Your task to perform on an android device: Search for "logitech g502" on amazon, select the first entry, and add it to the cart. Image 0: 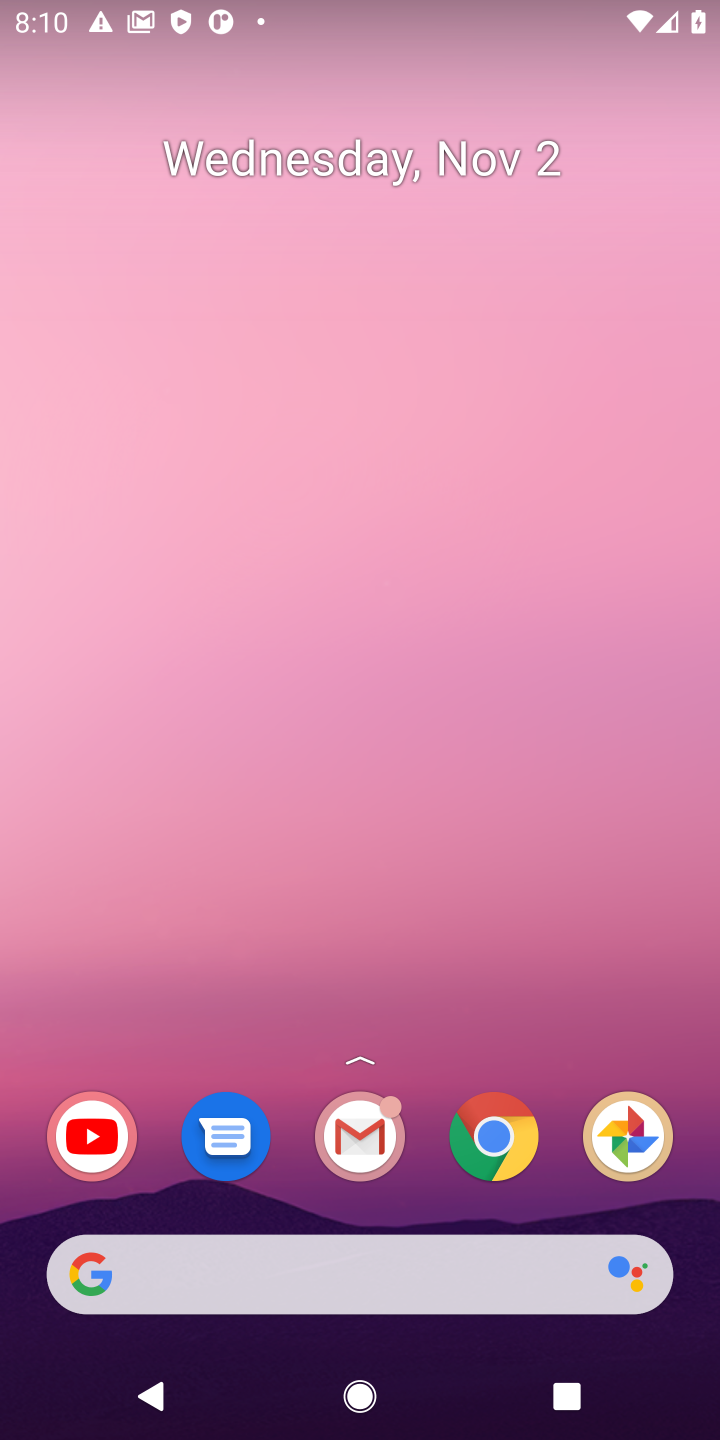
Step 0: drag from (432, 1132) to (325, 163)
Your task to perform on an android device: Search for "logitech g502" on amazon, select the first entry, and add it to the cart. Image 1: 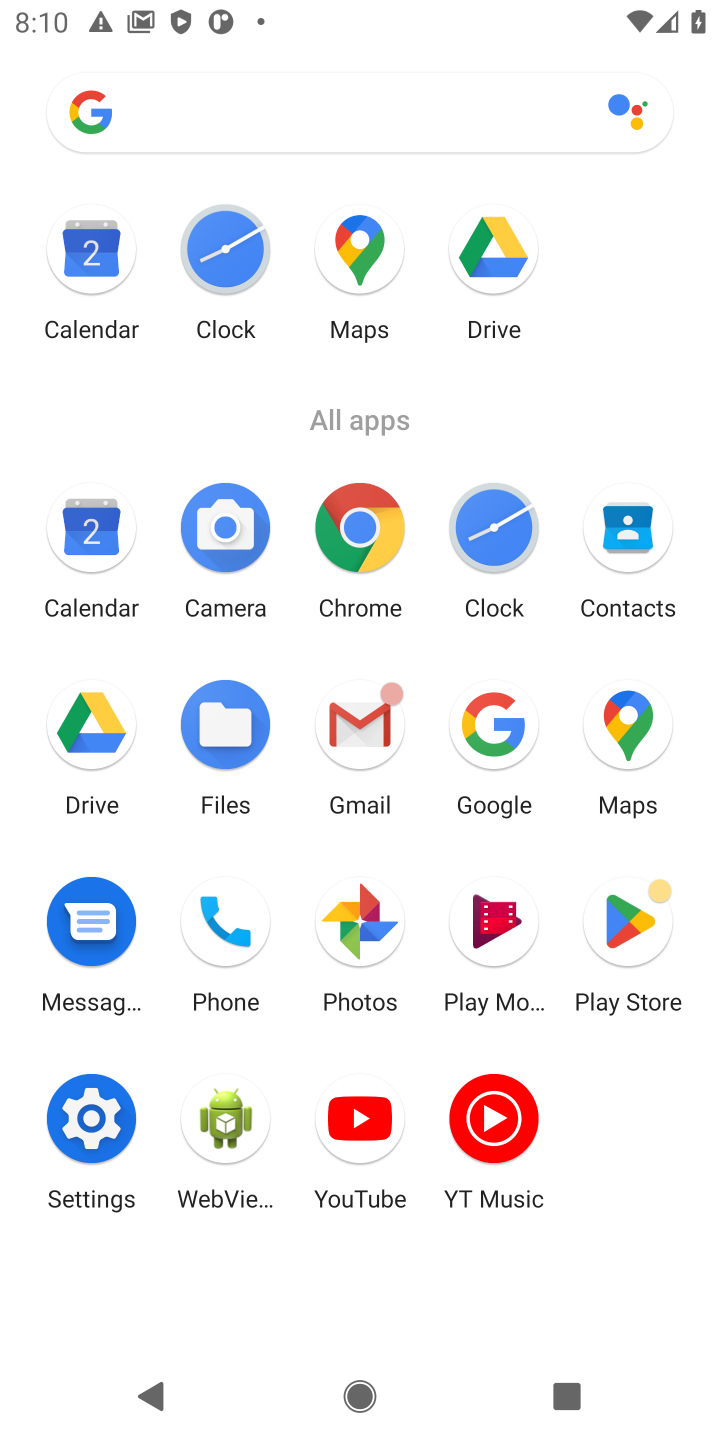
Step 1: click (484, 738)
Your task to perform on an android device: Search for "logitech g502" on amazon, select the first entry, and add it to the cart. Image 2: 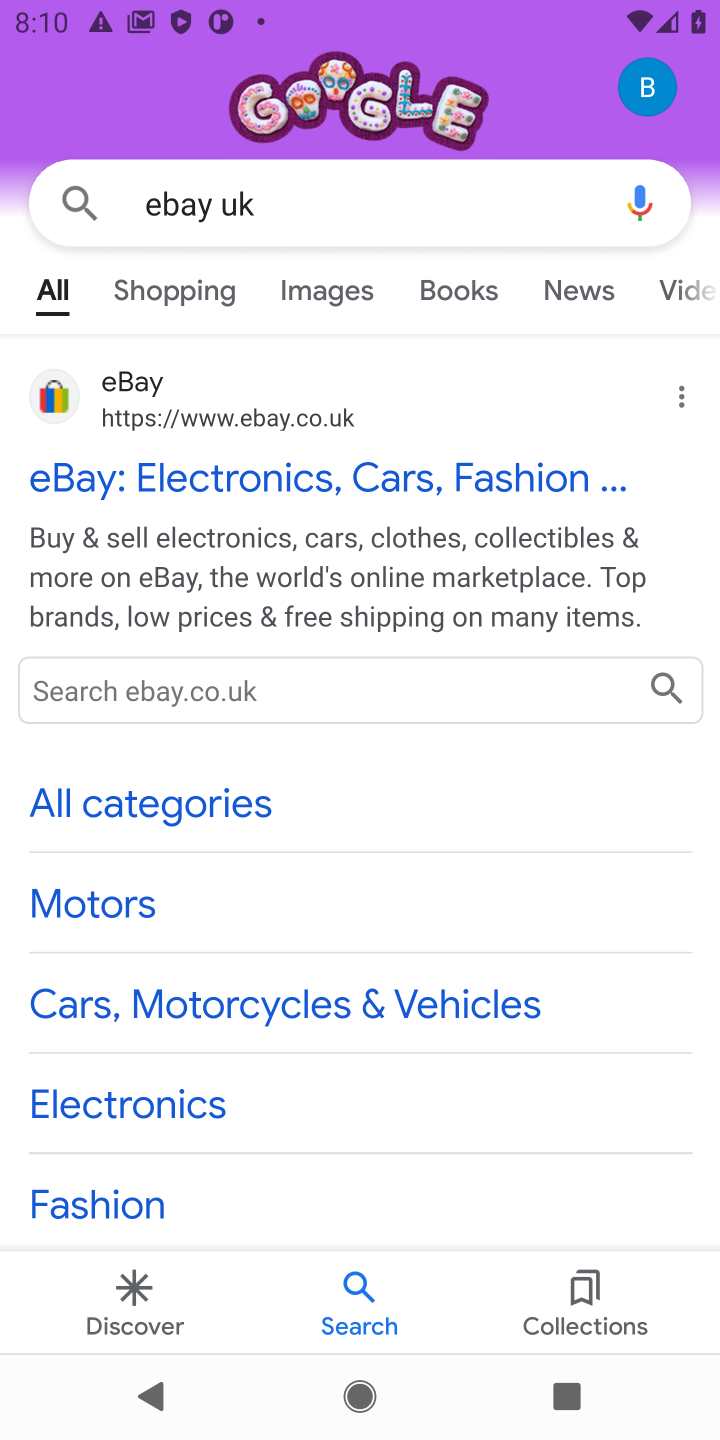
Step 2: click (329, 218)
Your task to perform on an android device: Search for "logitech g502" on amazon, select the first entry, and add it to the cart. Image 3: 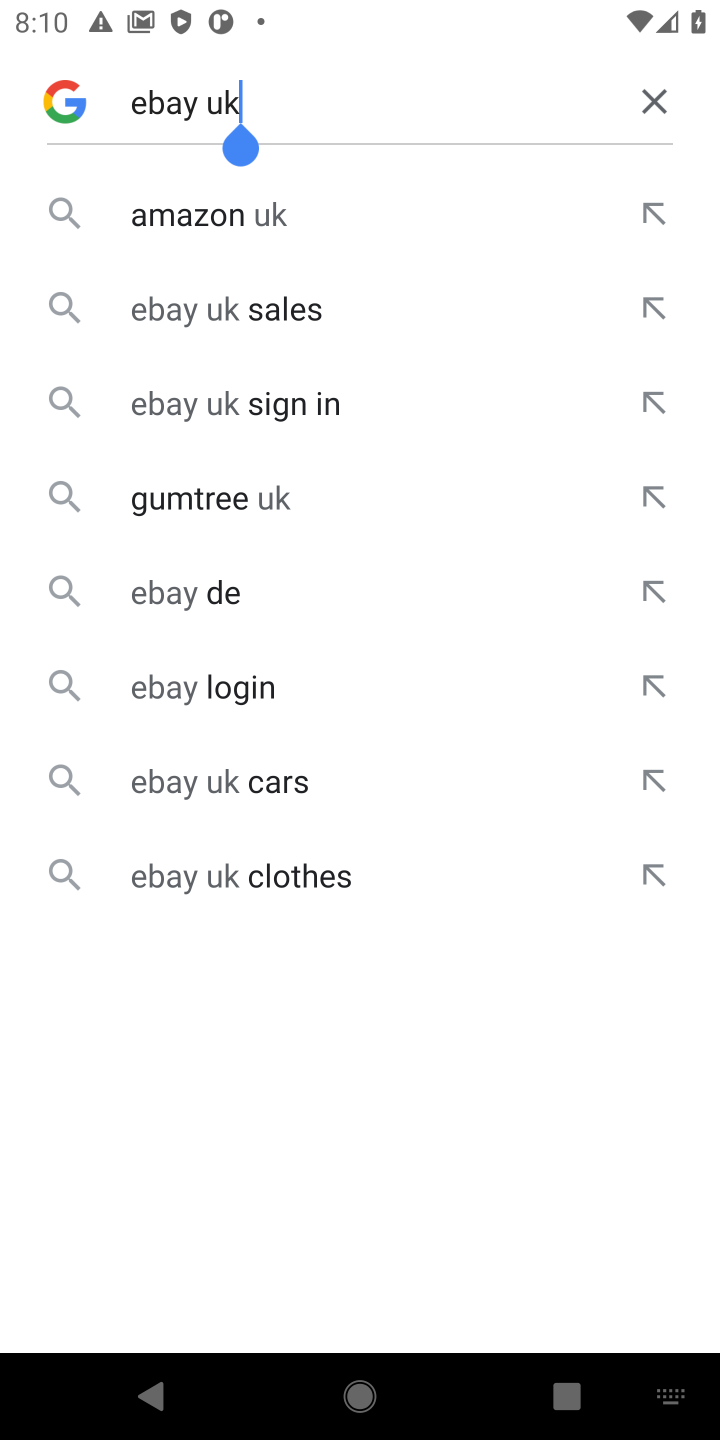
Step 3: click (667, 97)
Your task to perform on an android device: Search for "logitech g502" on amazon, select the first entry, and add it to the cart. Image 4: 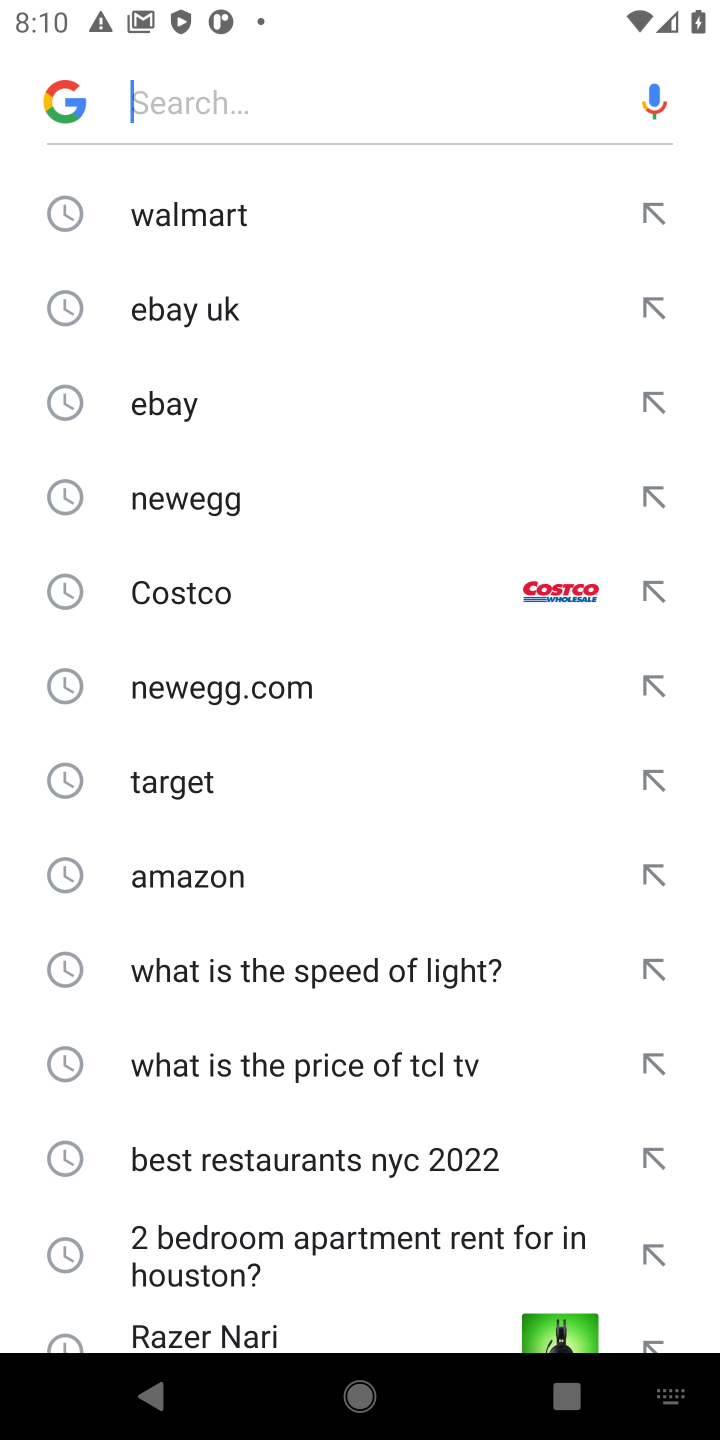
Step 4: click (230, 99)
Your task to perform on an android device: Search for "logitech g502" on amazon, select the first entry, and add it to the cart. Image 5: 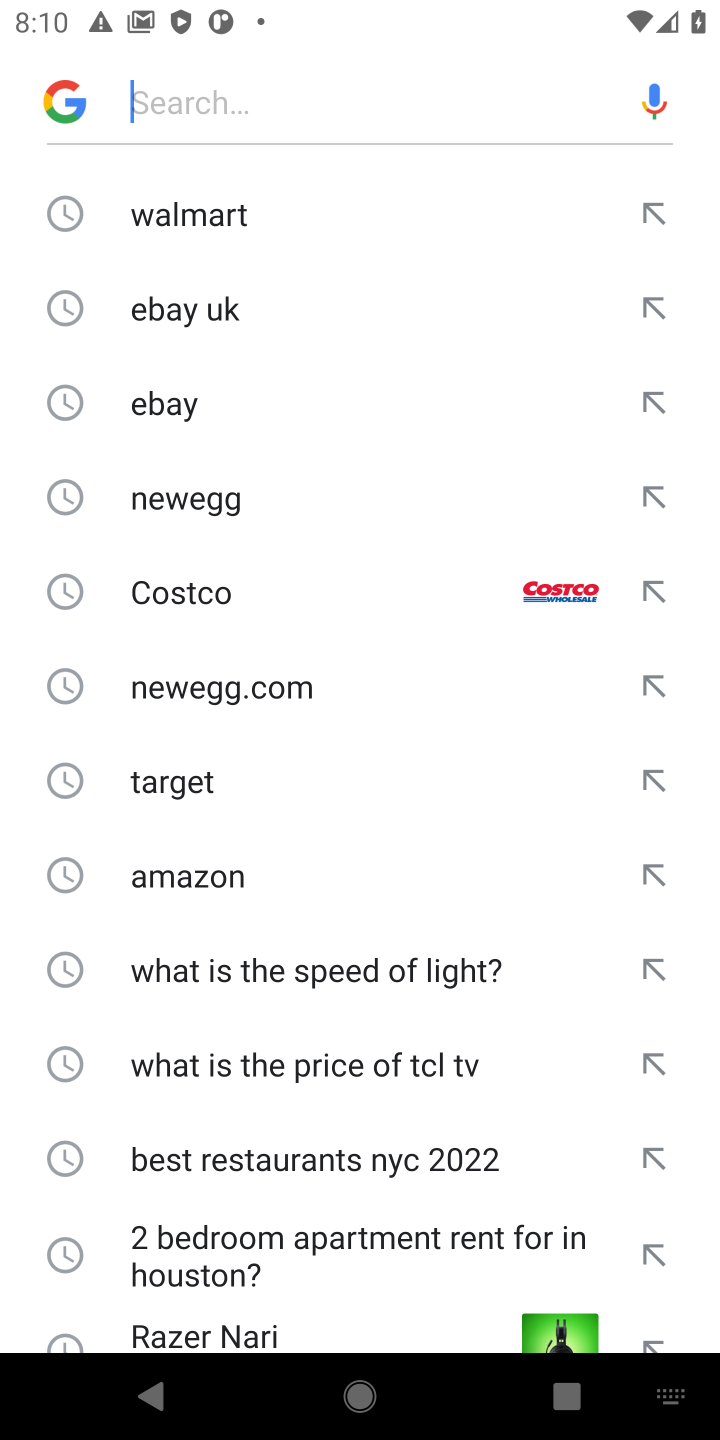
Step 5: type "amazon "
Your task to perform on an android device: Search for "logitech g502" on amazon, select the first entry, and add it to the cart. Image 6: 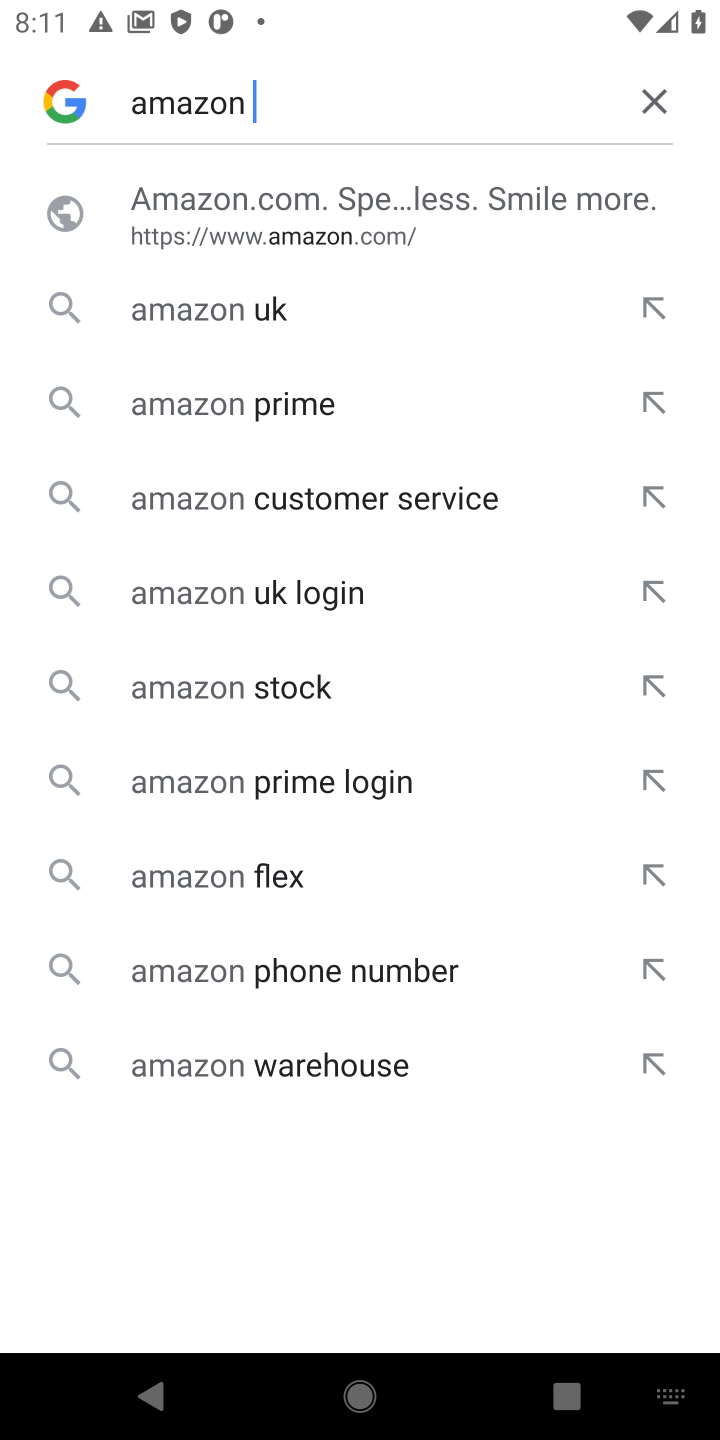
Step 6: click (288, 284)
Your task to perform on an android device: Search for "logitech g502" on amazon, select the first entry, and add it to the cart. Image 7: 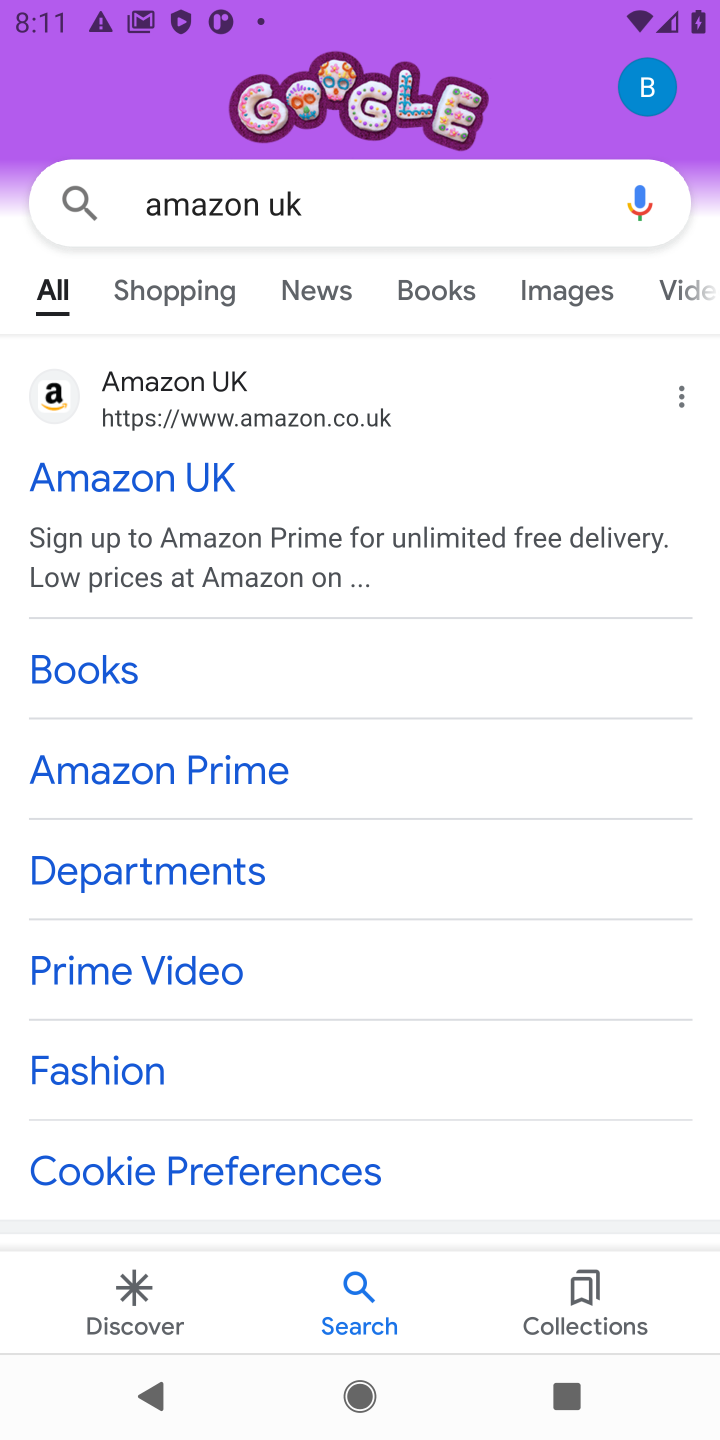
Step 7: click (102, 489)
Your task to perform on an android device: Search for "logitech g502" on amazon, select the first entry, and add it to the cart. Image 8: 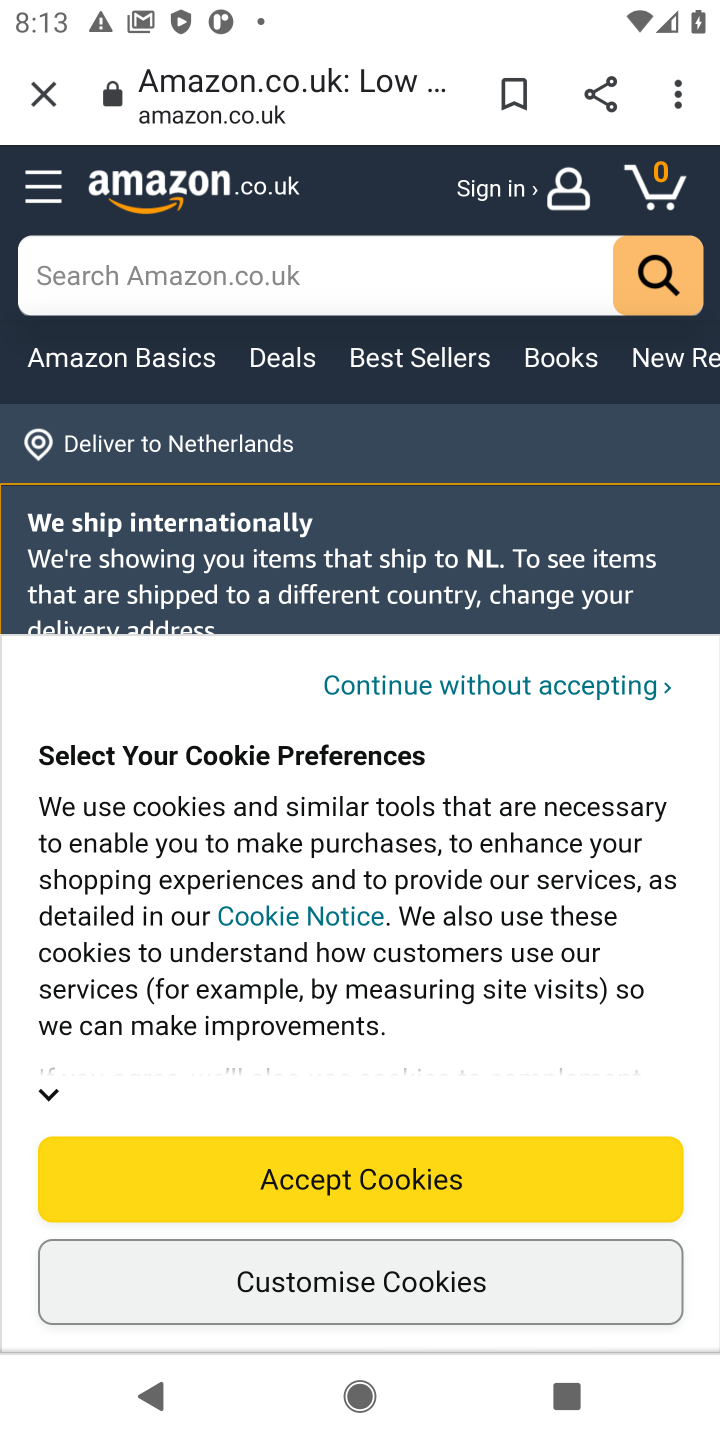
Step 8: click (290, 1154)
Your task to perform on an android device: Search for "logitech g502" on amazon, select the first entry, and add it to the cart. Image 9: 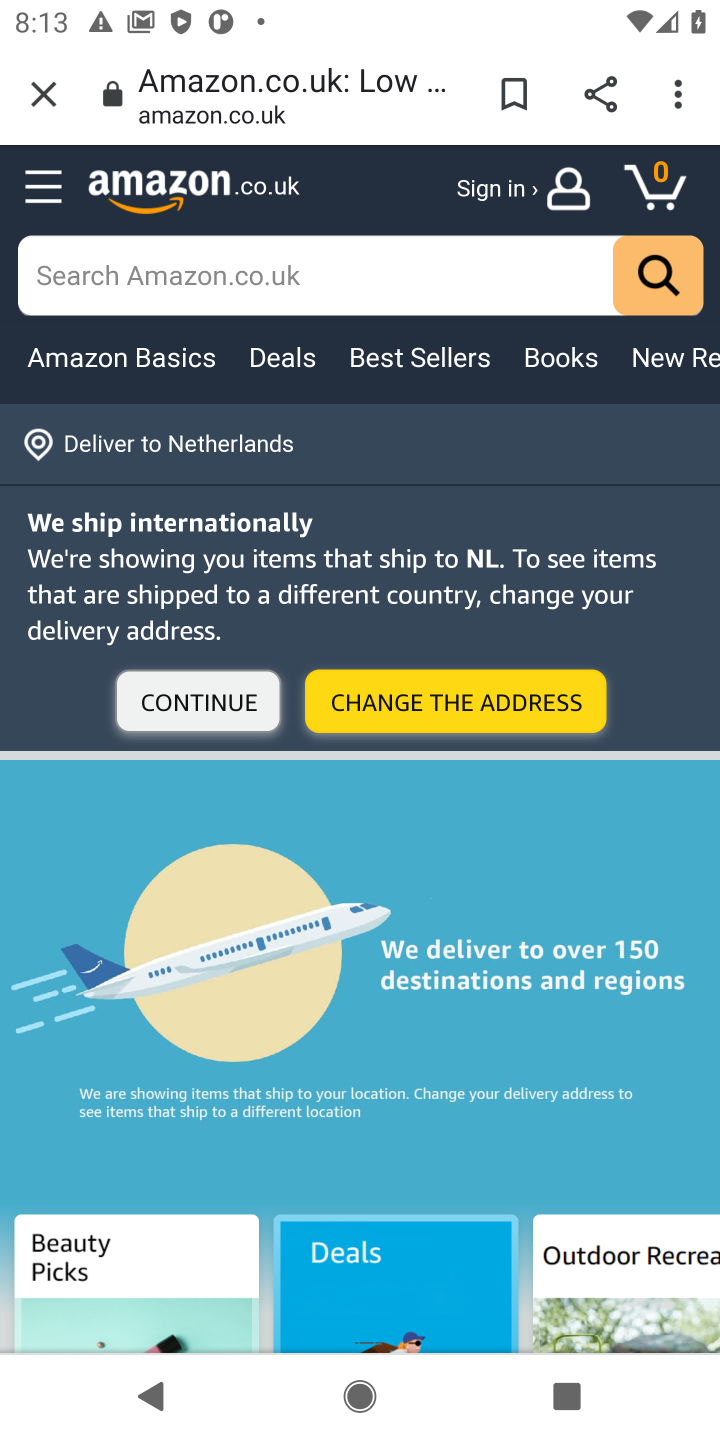
Step 9: drag from (416, 1076) to (545, 168)
Your task to perform on an android device: Search for "logitech g502" on amazon, select the first entry, and add it to the cart. Image 10: 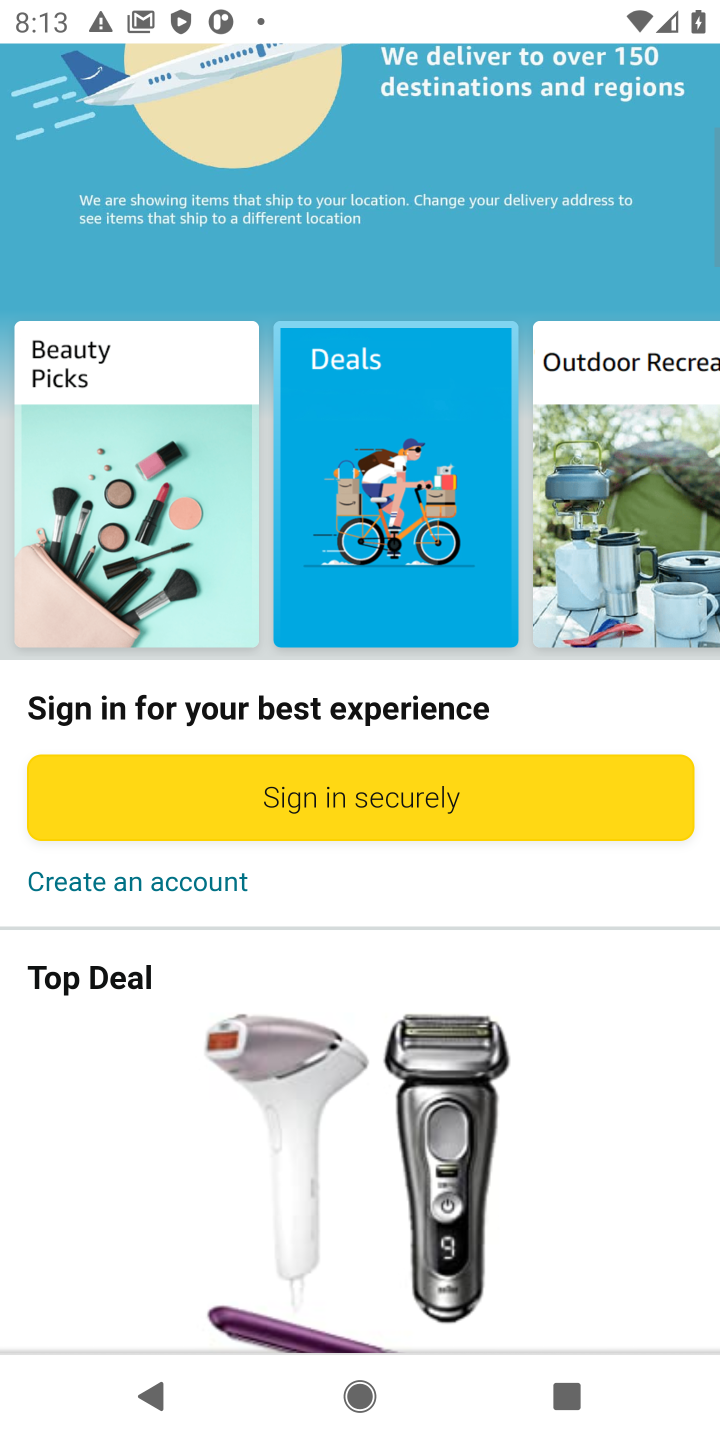
Step 10: drag from (361, 1190) to (349, 1361)
Your task to perform on an android device: Search for "logitech g502" on amazon, select the first entry, and add it to the cart. Image 11: 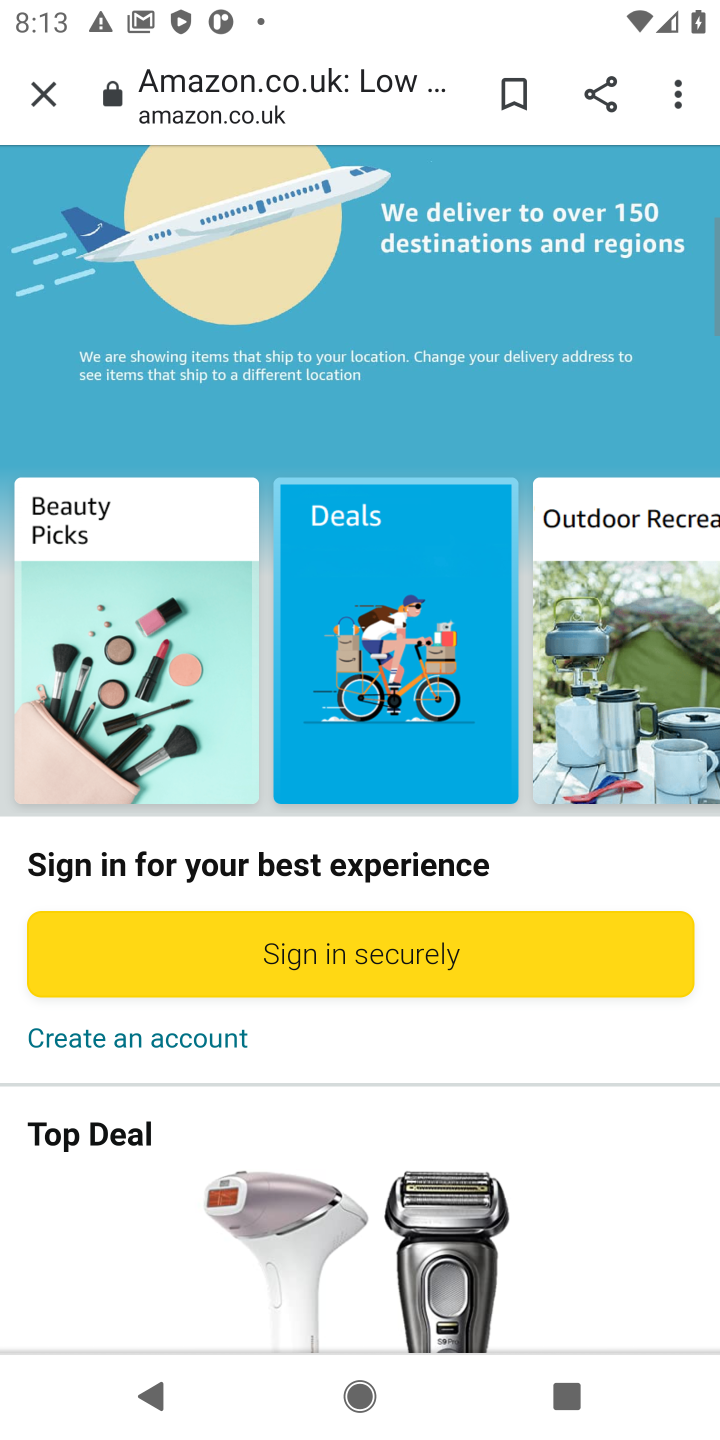
Step 11: drag from (321, 709) to (321, 842)
Your task to perform on an android device: Search for "logitech g502" on amazon, select the first entry, and add it to the cart. Image 12: 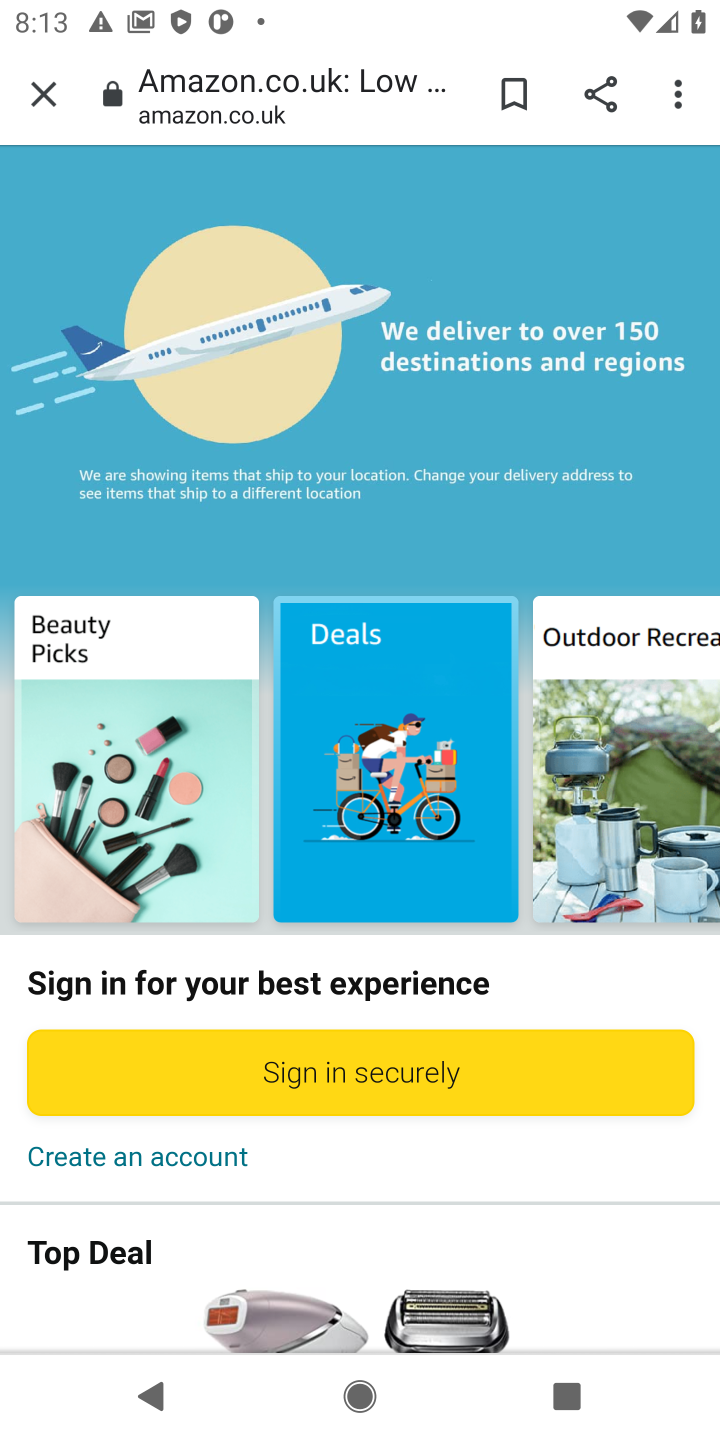
Step 12: drag from (285, 295) to (289, 1389)
Your task to perform on an android device: Search for "logitech g502" on amazon, select the first entry, and add it to the cart. Image 13: 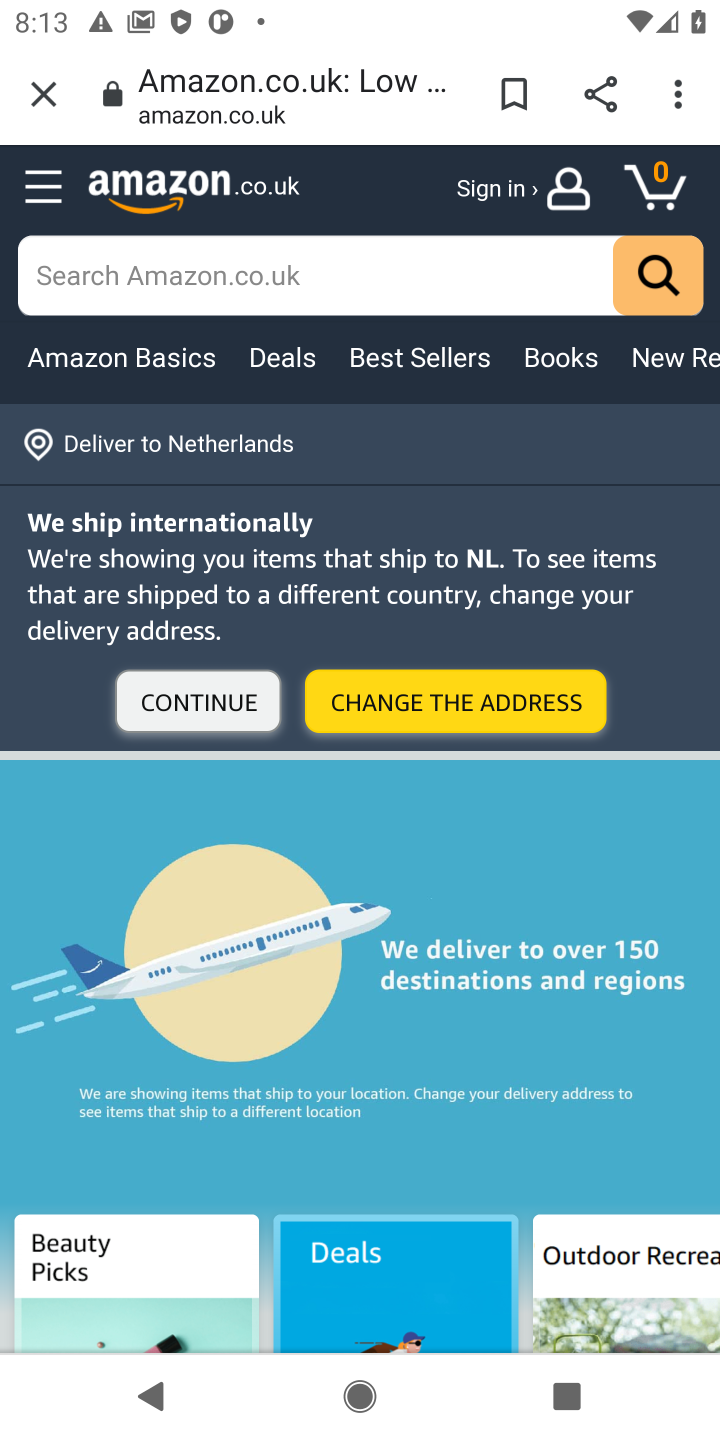
Step 13: click (285, 272)
Your task to perform on an android device: Search for "logitech g502" on amazon, select the first entry, and add it to the cart. Image 14: 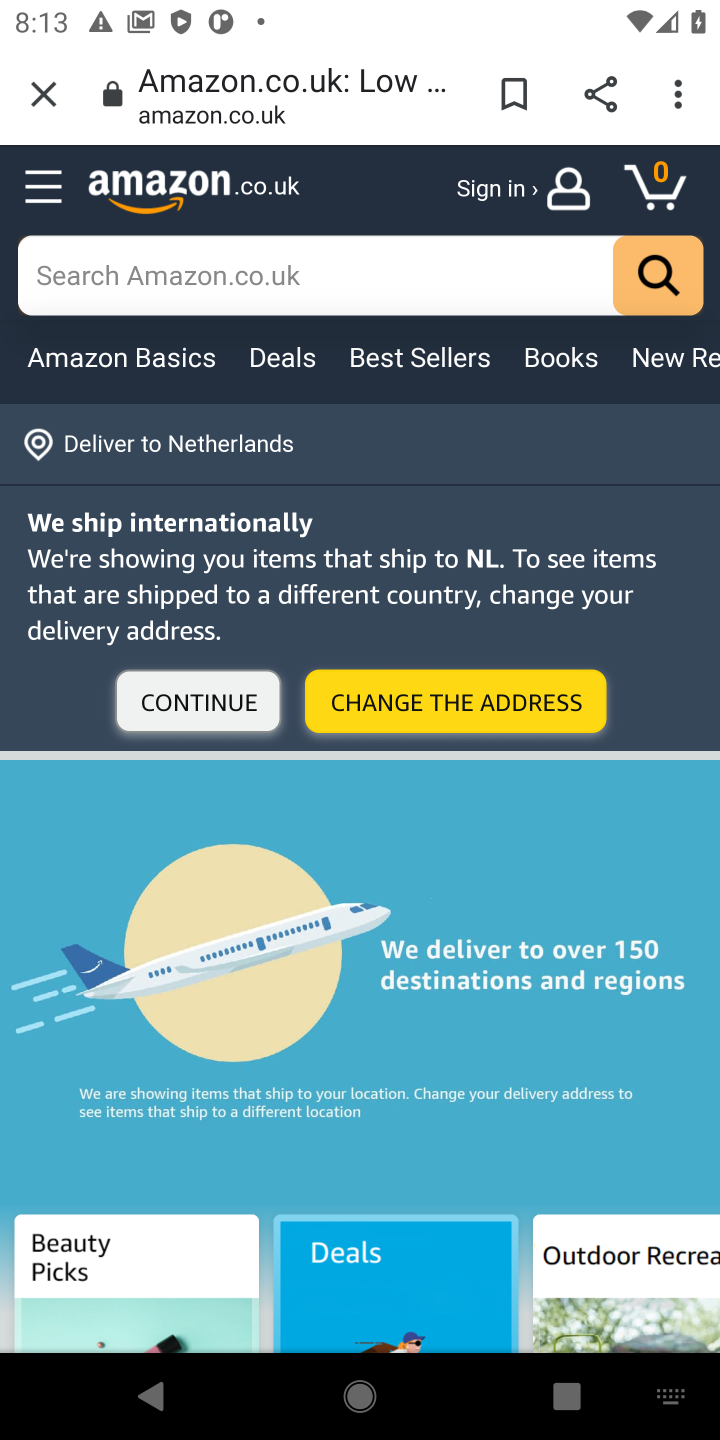
Step 14: type "logitech g502 "
Your task to perform on an android device: Search for "logitech g502" on amazon, select the first entry, and add it to the cart. Image 15: 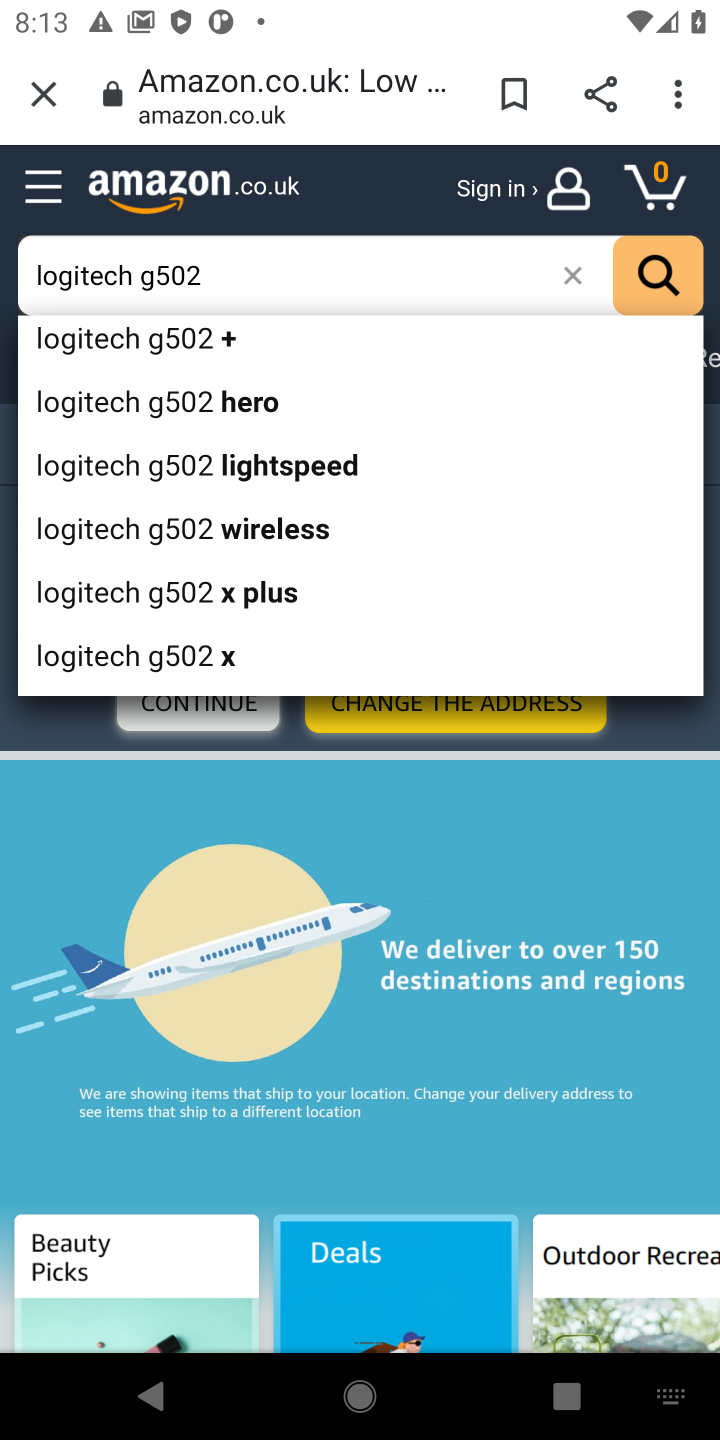
Step 15: click (136, 325)
Your task to perform on an android device: Search for "logitech g502" on amazon, select the first entry, and add it to the cart. Image 16: 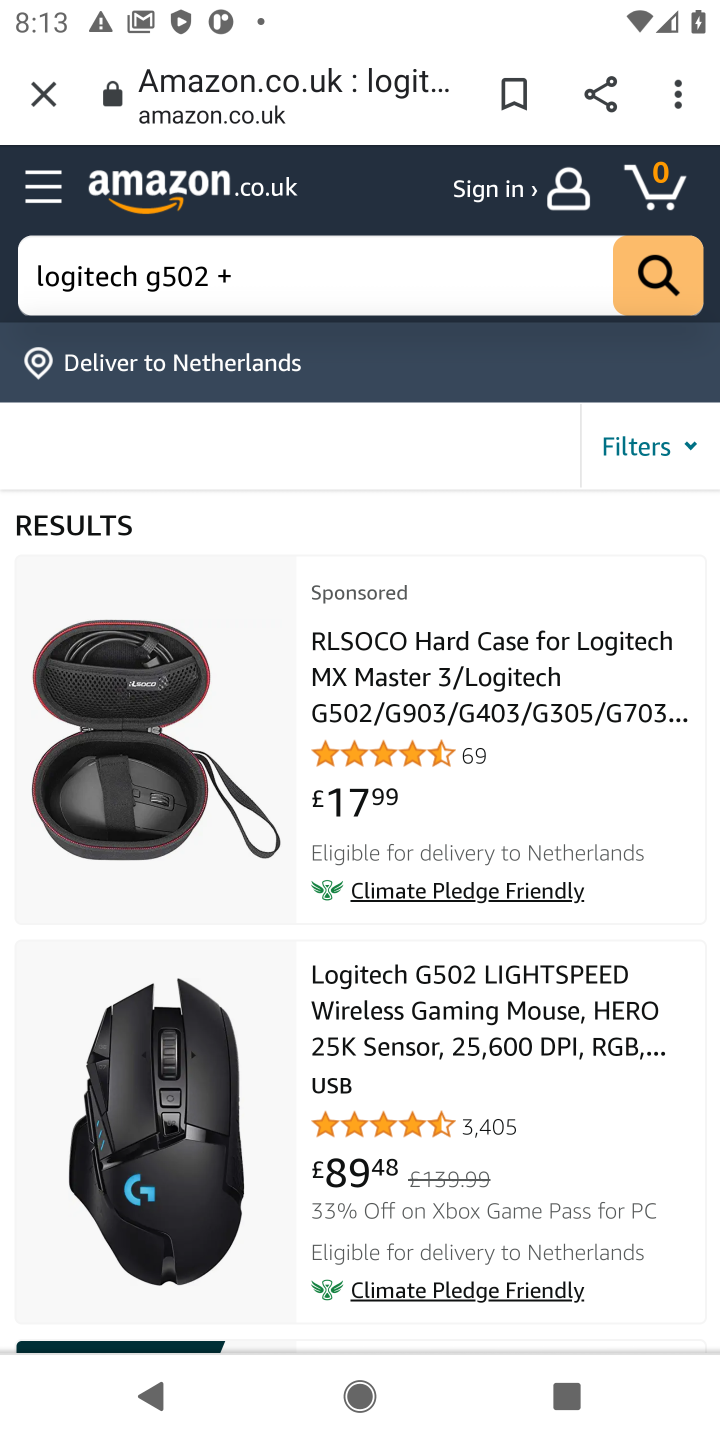
Step 16: click (431, 622)
Your task to perform on an android device: Search for "logitech g502" on amazon, select the first entry, and add it to the cart. Image 17: 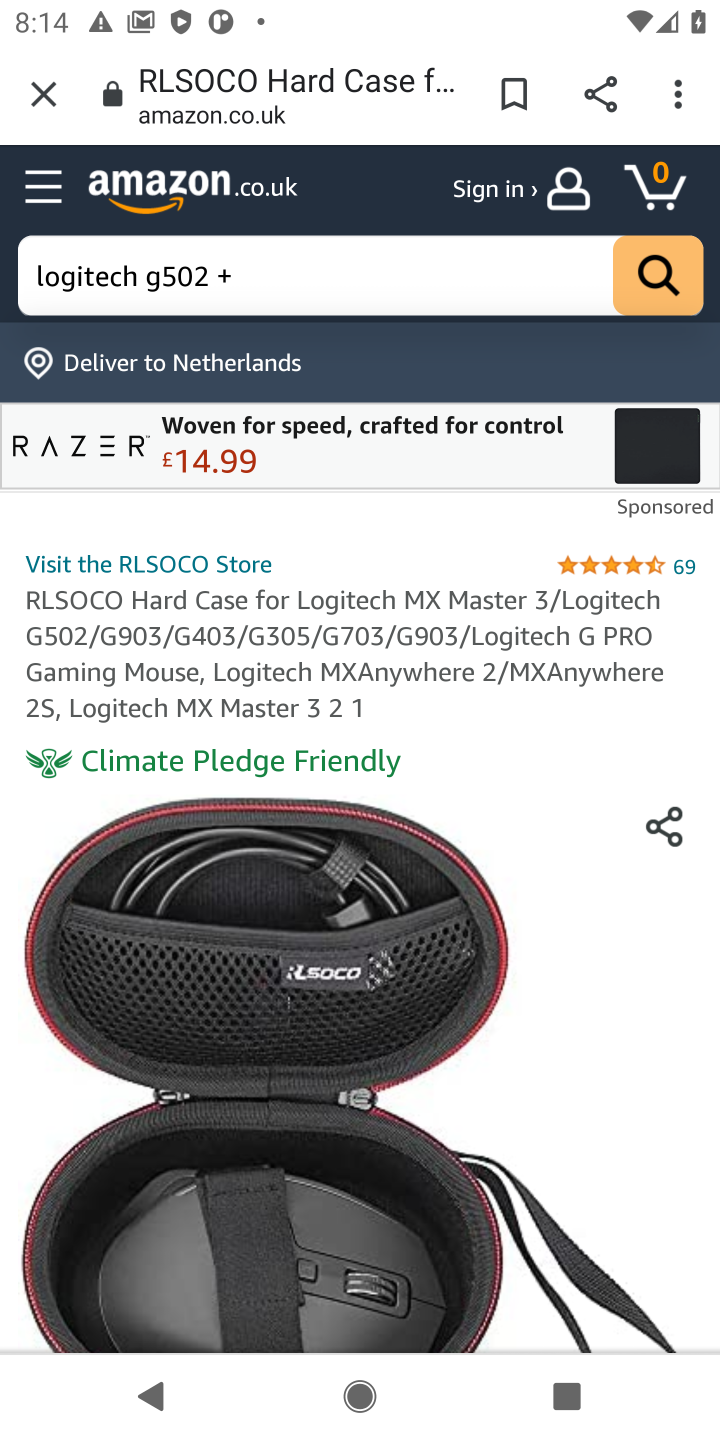
Step 17: drag from (253, 862) to (257, 322)
Your task to perform on an android device: Search for "logitech g502" on amazon, select the first entry, and add it to the cart. Image 18: 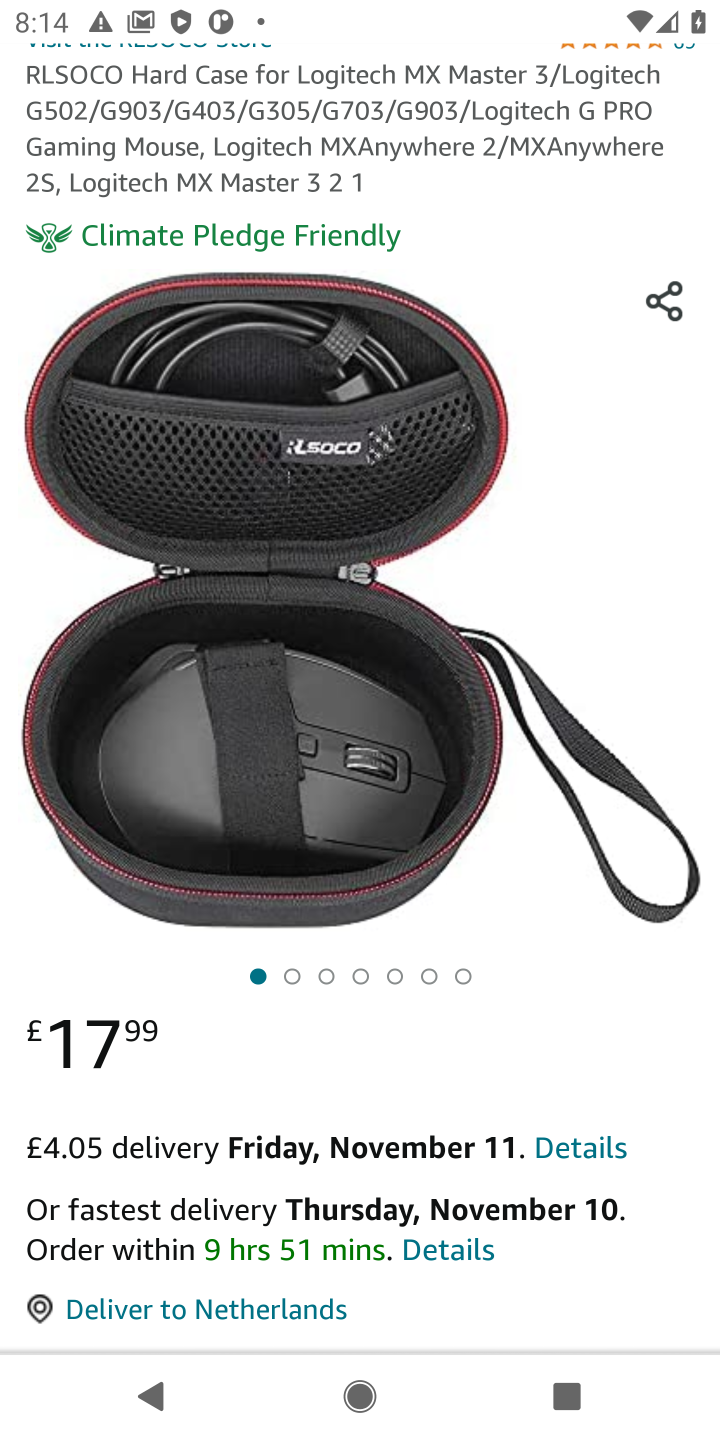
Step 18: drag from (347, 1197) to (355, 278)
Your task to perform on an android device: Search for "logitech g502" on amazon, select the first entry, and add it to the cart. Image 19: 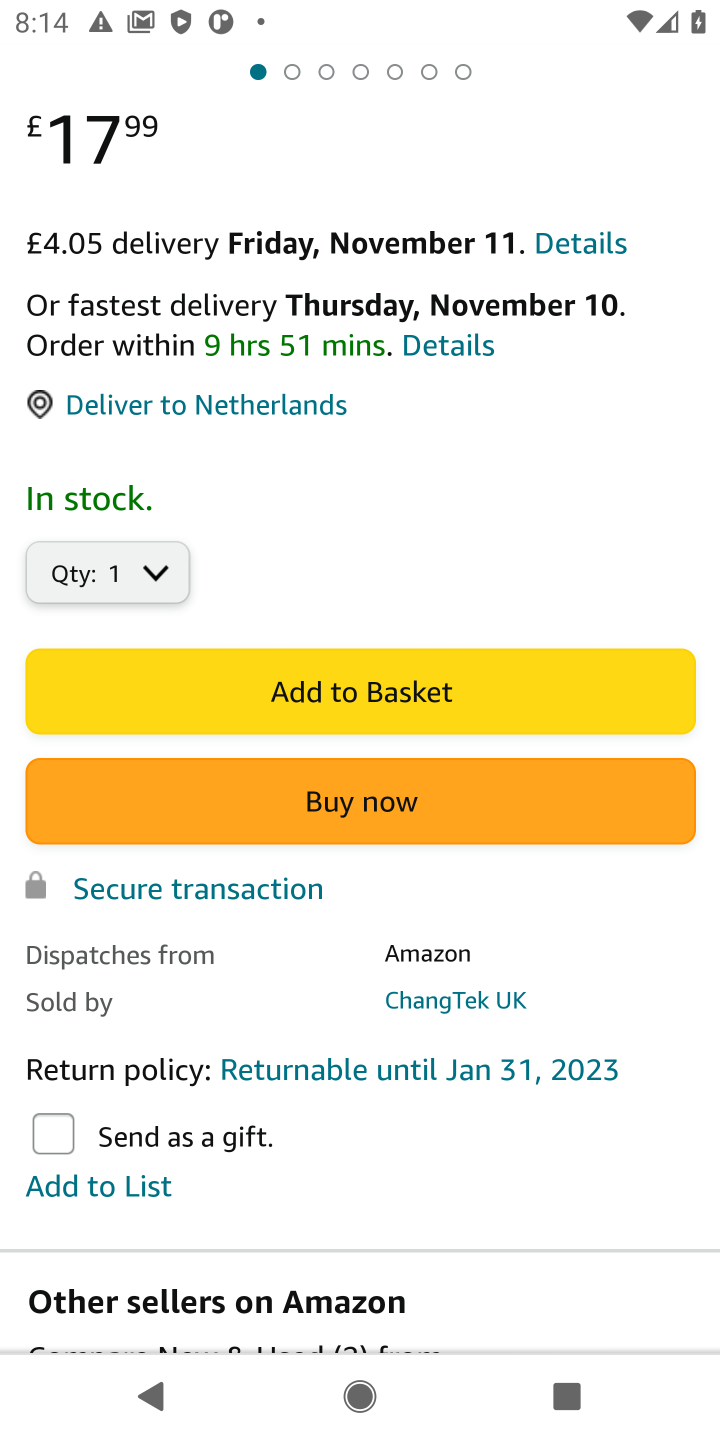
Step 19: click (381, 678)
Your task to perform on an android device: Search for "logitech g502" on amazon, select the first entry, and add it to the cart. Image 20: 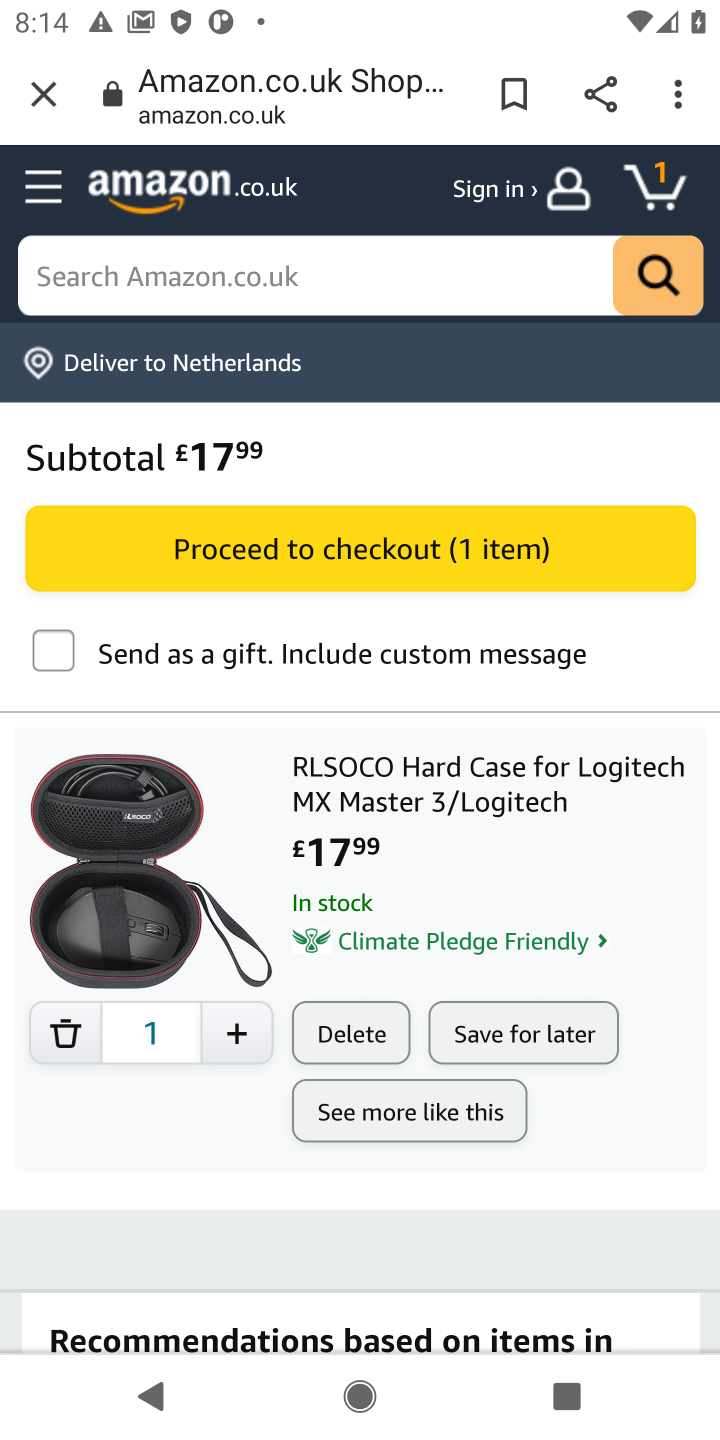
Step 20: task complete